Your task to perform on an android device: find snoozed emails in the gmail app Image 0: 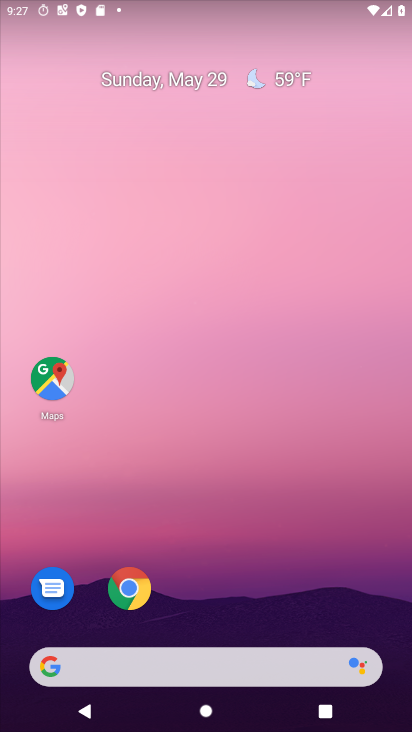
Step 0: drag from (209, 621) to (249, 103)
Your task to perform on an android device: find snoozed emails in the gmail app Image 1: 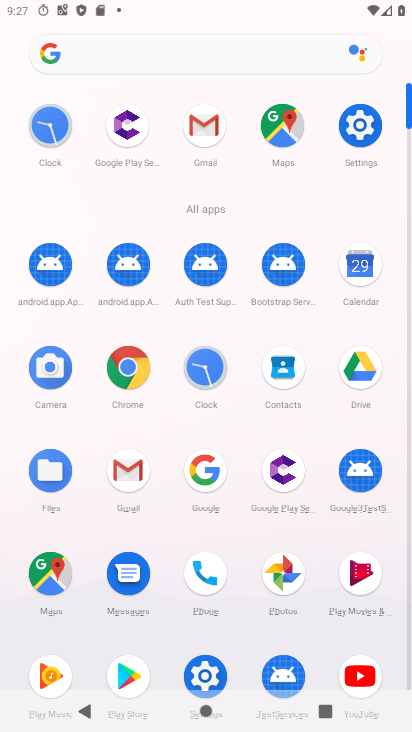
Step 1: click (136, 470)
Your task to perform on an android device: find snoozed emails in the gmail app Image 2: 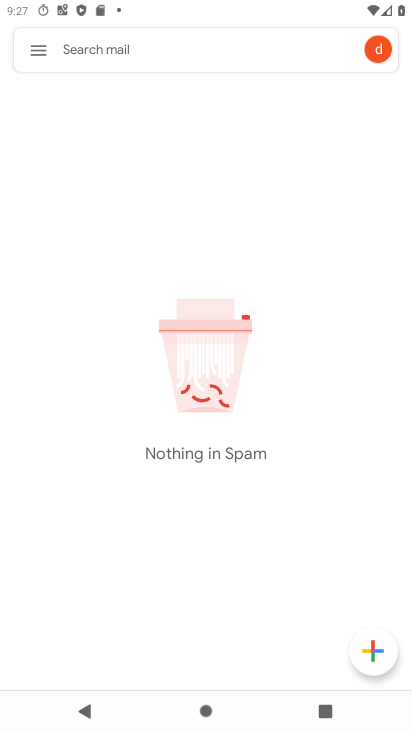
Step 2: click (44, 58)
Your task to perform on an android device: find snoozed emails in the gmail app Image 3: 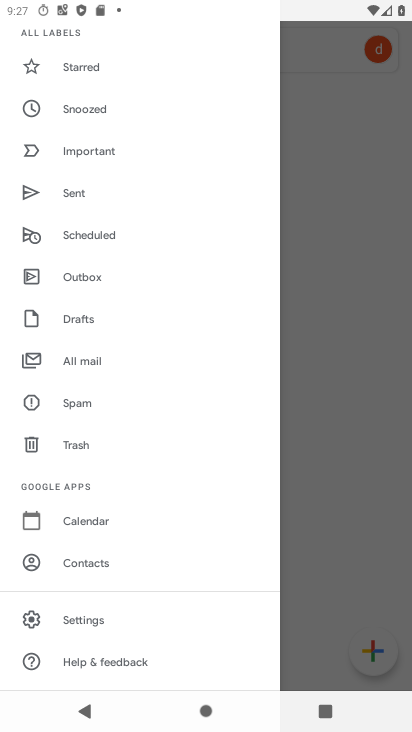
Step 3: click (101, 118)
Your task to perform on an android device: find snoozed emails in the gmail app Image 4: 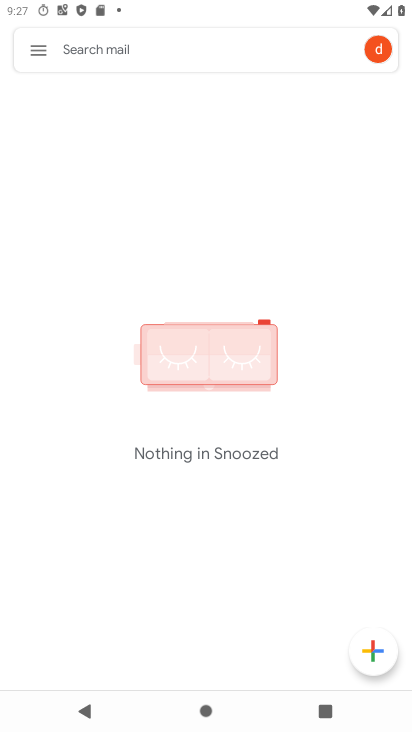
Step 4: task complete